Your task to perform on an android device: allow cookies in the chrome app Image 0: 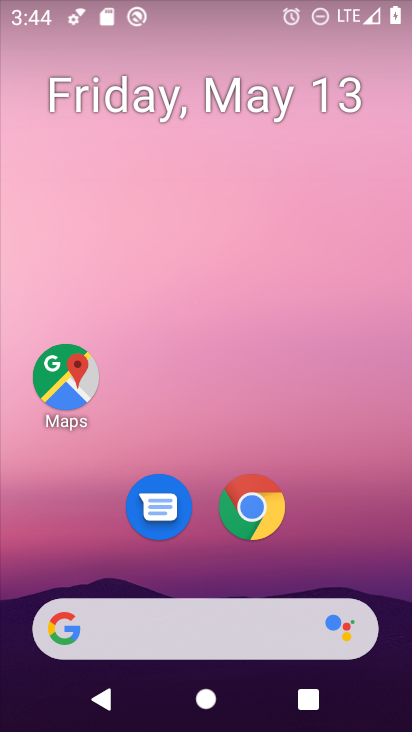
Step 0: click (278, 515)
Your task to perform on an android device: allow cookies in the chrome app Image 1: 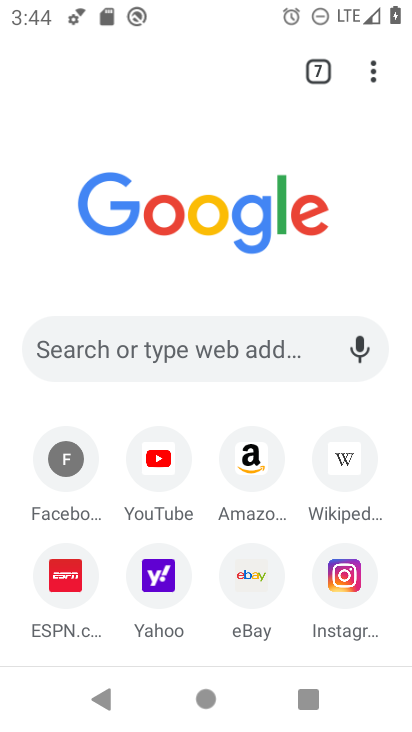
Step 1: click (368, 75)
Your task to perform on an android device: allow cookies in the chrome app Image 2: 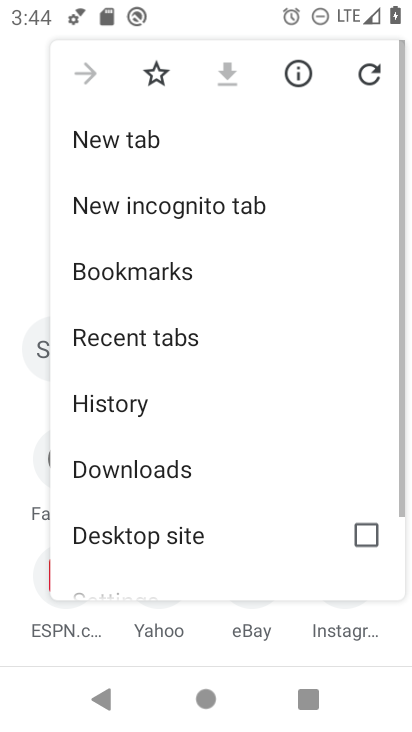
Step 2: drag from (256, 461) to (268, 210)
Your task to perform on an android device: allow cookies in the chrome app Image 3: 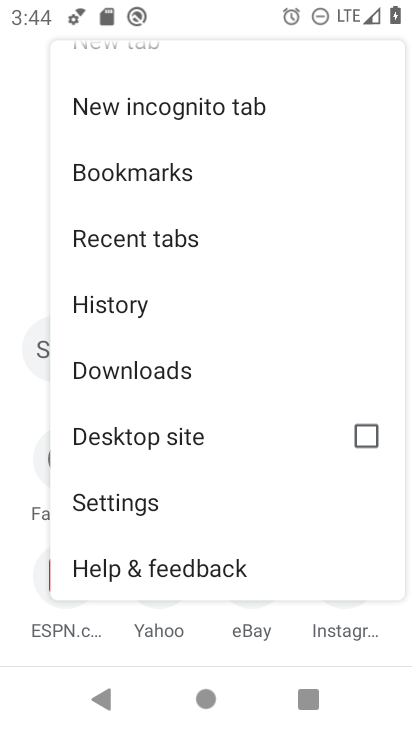
Step 3: drag from (272, 473) to (307, 23)
Your task to perform on an android device: allow cookies in the chrome app Image 4: 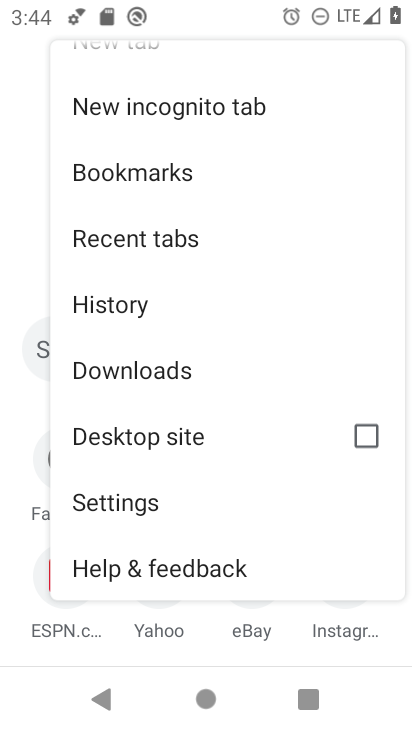
Step 4: click (146, 496)
Your task to perform on an android device: allow cookies in the chrome app Image 5: 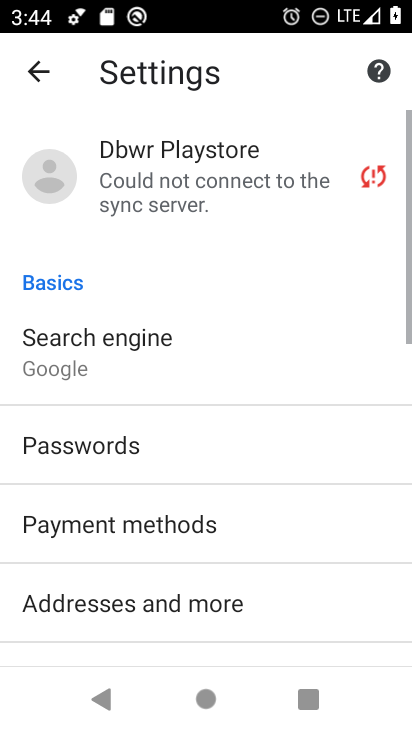
Step 5: drag from (229, 458) to (250, 138)
Your task to perform on an android device: allow cookies in the chrome app Image 6: 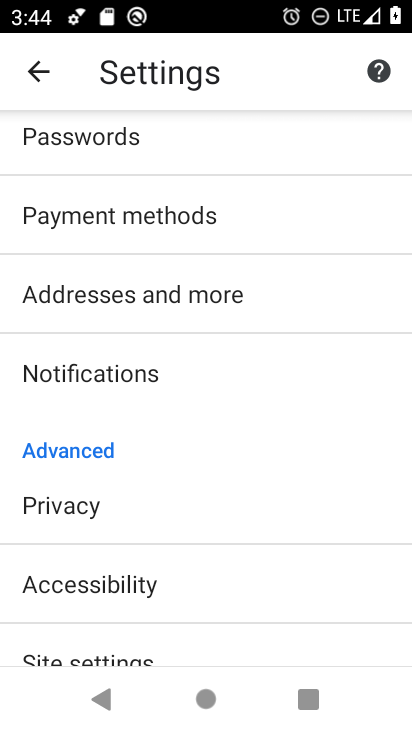
Step 6: drag from (217, 453) to (239, 181)
Your task to perform on an android device: allow cookies in the chrome app Image 7: 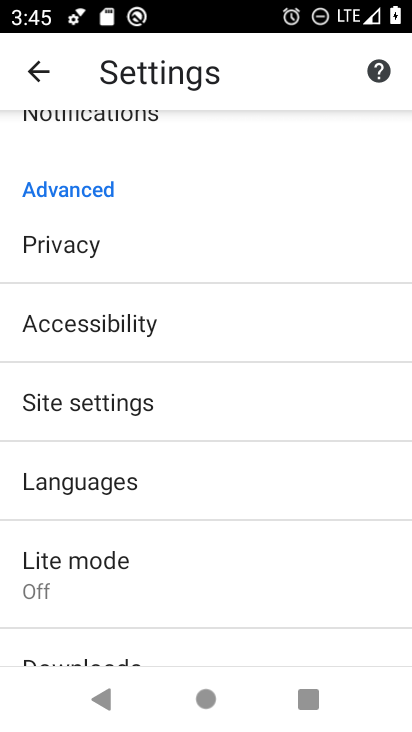
Step 7: click (167, 394)
Your task to perform on an android device: allow cookies in the chrome app Image 8: 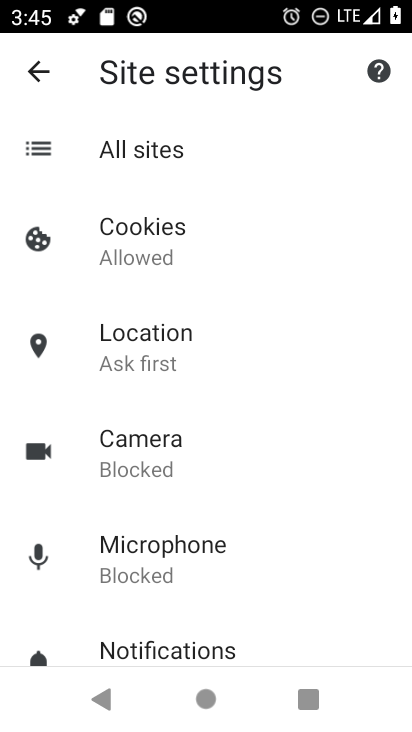
Step 8: click (192, 261)
Your task to perform on an android device: allow cookies in the chrome app Image 9: 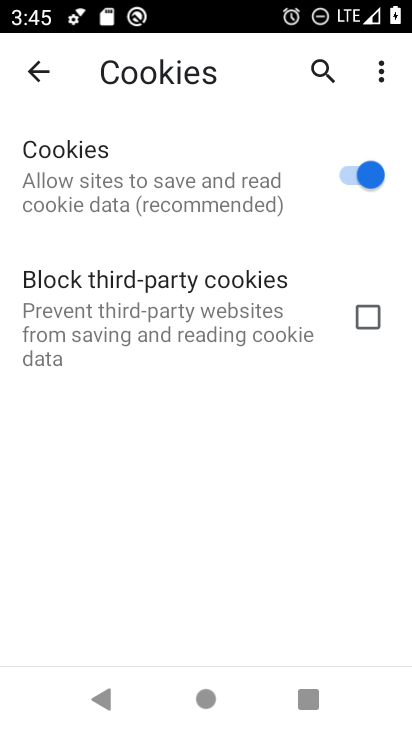
Step 9: task complete